Your task to perform on an android device: Open settings Image 0: 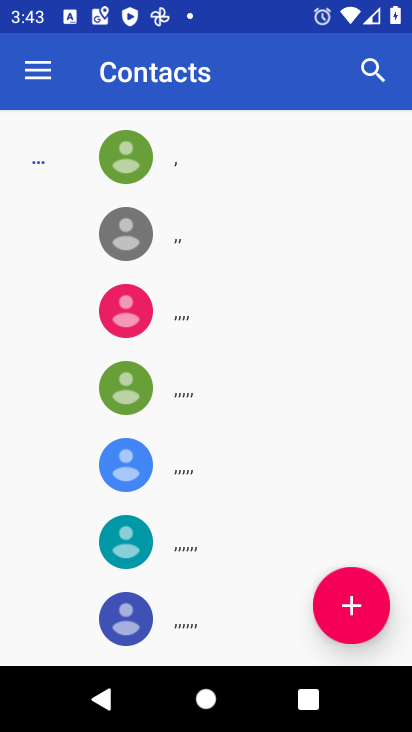
Step 0: press home button
Your task to perform on an android device: Open settings Image 1: 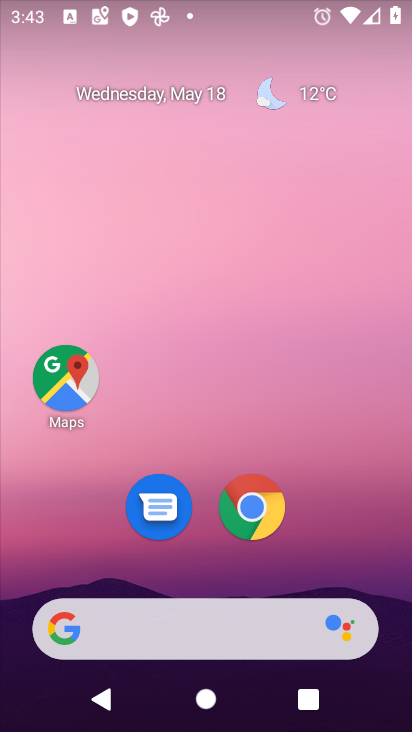
Step 1: drag from (398, 616) to (321, 213)
Your task to perform on an android device: Open settings Image 2: 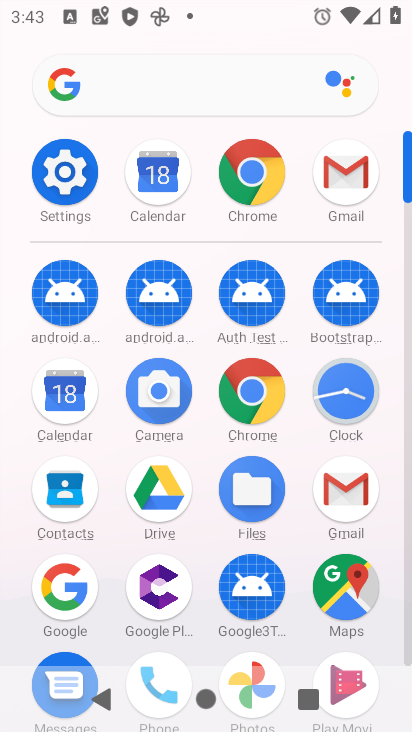
Step 2: click (405, 649)
Your task to perform on an android device: Open settings Image 3: 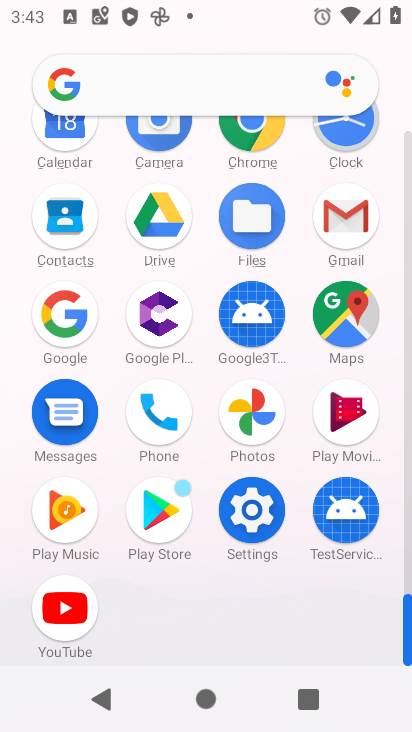
Step 3: click (254, 511)
Your task to perform on an android device: Open settings Image 4: 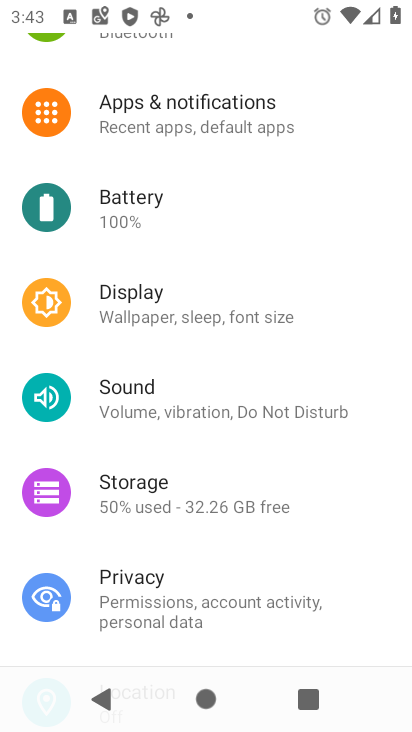
Step 4: task complete